Your task to perform on an android device: change the upload size in google photos Image 0: 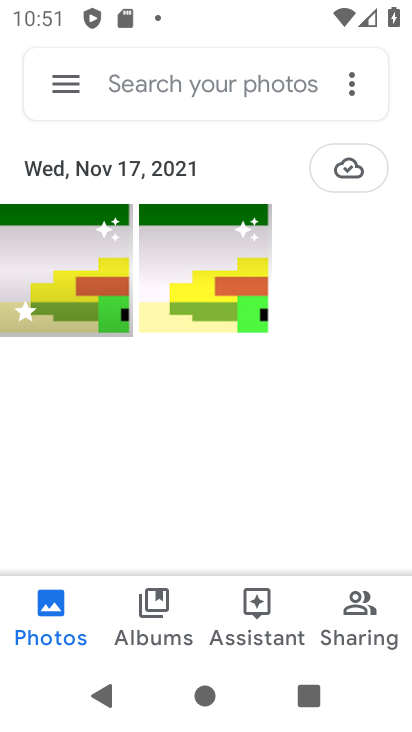
Step 0: click (74, 90)
Your task to perform on an android device: change the upload size in google photos Image 1: 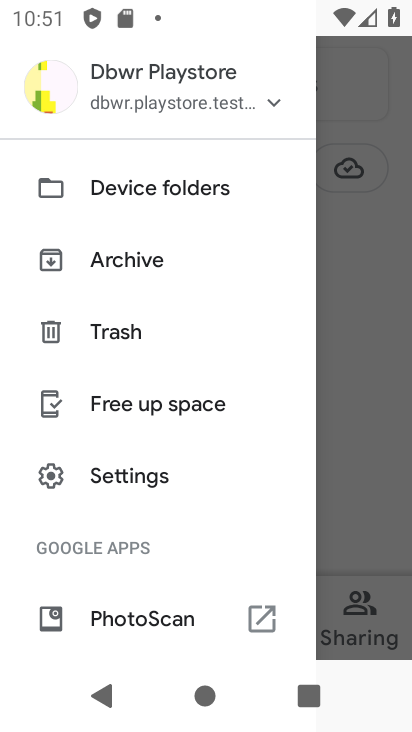
Step 1: click (132, 488)
Your task to perform on an android device: change the upload size in google photos Image 2: 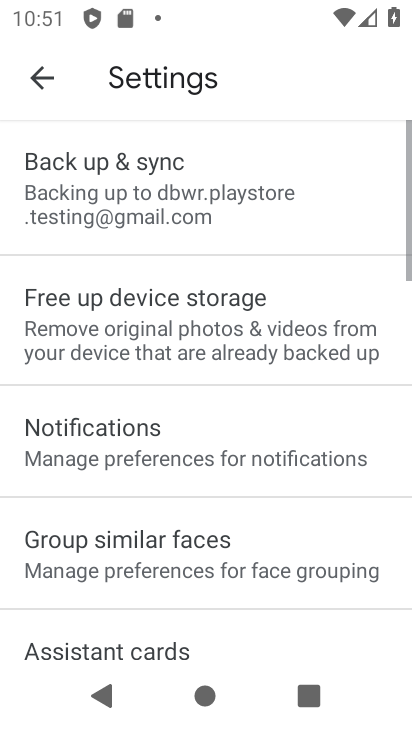
Step 2: click (111, 174)
Your task to perform on an android device: change the upload size in google photos Image 3: 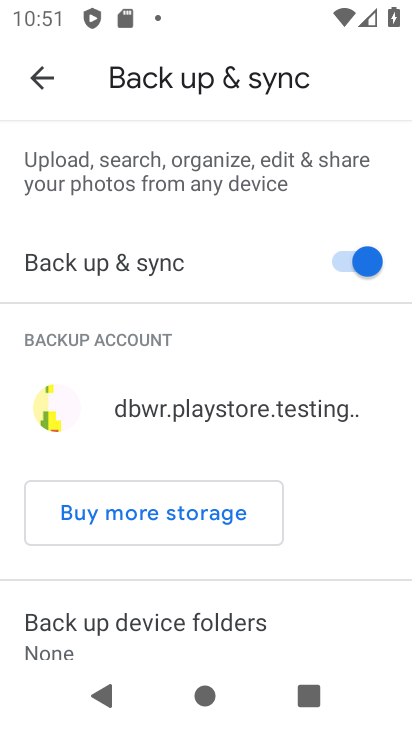
Step 3: drag from (157, 556) to (160, 339)
Your task to perform on an android device: change the upload size in google photos Image 4: 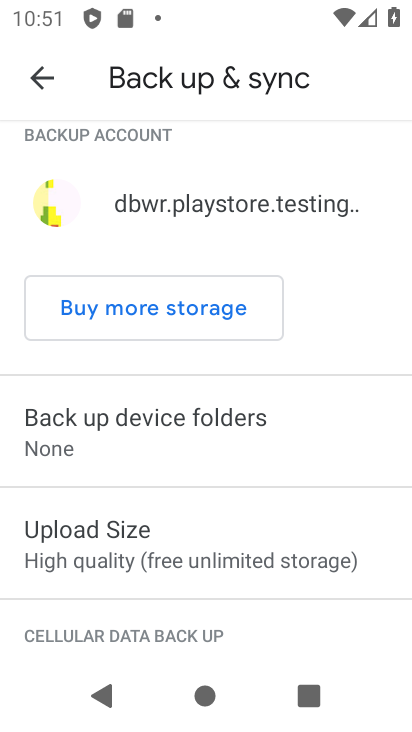
Step 4: click (152, 515)
Your task to perform on an android device: change the upload size in google photos Image 5: 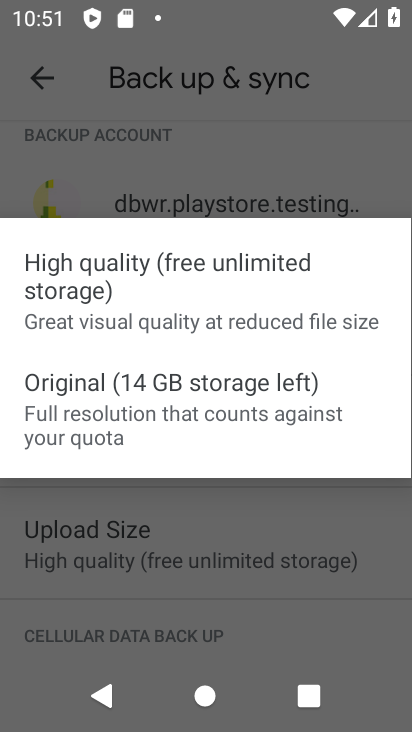
Step 5: click (138, 416)
Your task to perform on an android device: change the upload size in google photos Image 6: 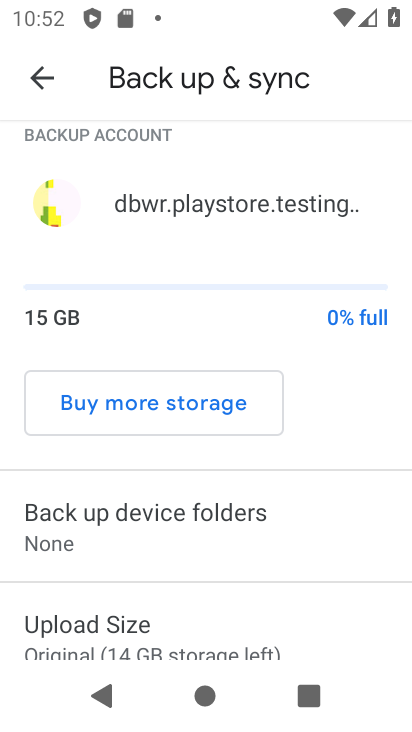
Step 6: task complete